Your task to perform on an android device: turn on the 24-hour format for clock Image 0: 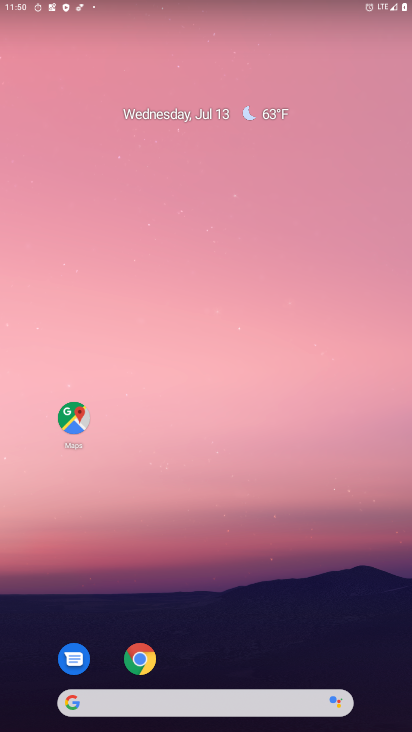
Step 0: drag from (307, 628) to (282, 107)
Your task to perform on an android device: turn on the 24-hour format for clock Image 1: 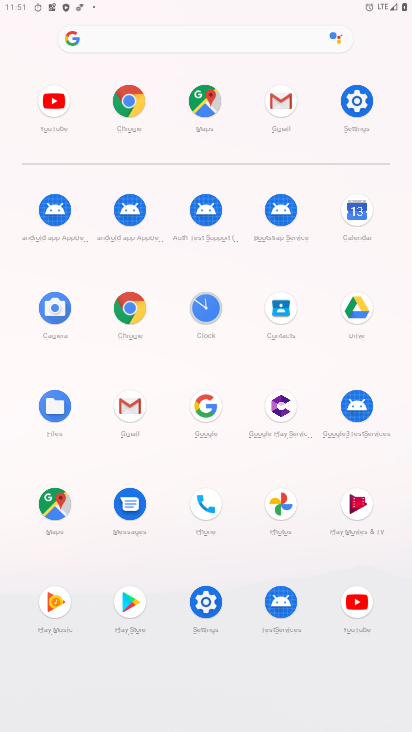
Step 1: click (212, 309)
Your task to perform on an android device: turn on the 24-hour format for clock Image 2: 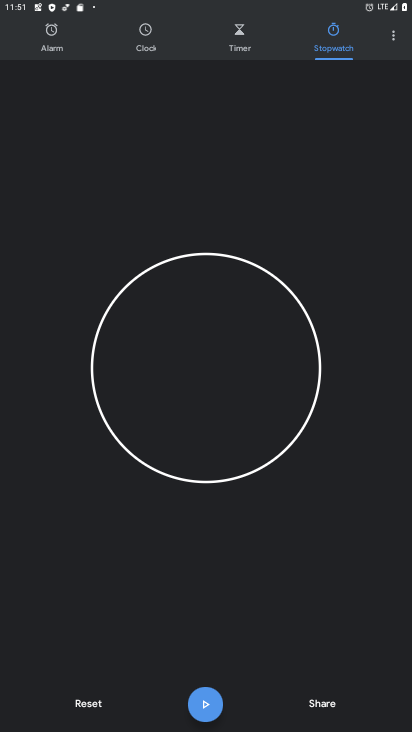
Step 2: click (398, 34)
Your task to perform on an android device: turn on the 24-hour format for clock Image 3: 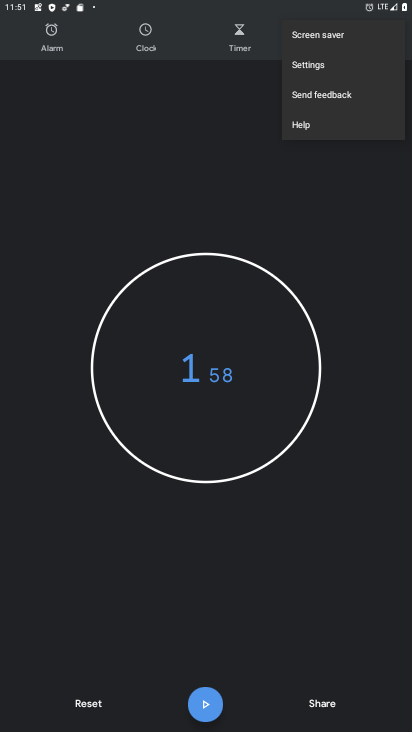
Step 3: click (313, 61)
Your task to perform on an android device: turn on the 24-hour format for clock Image 4: 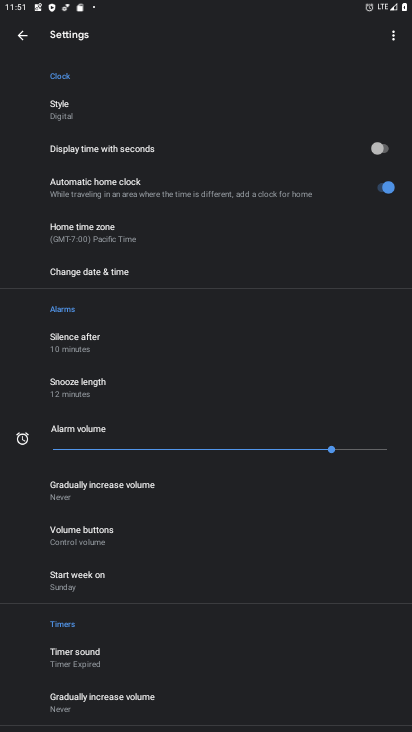
Step 4: click (120, 275)
Your task to perform on an android device: turn on the 24-hour format for clock Image 5: 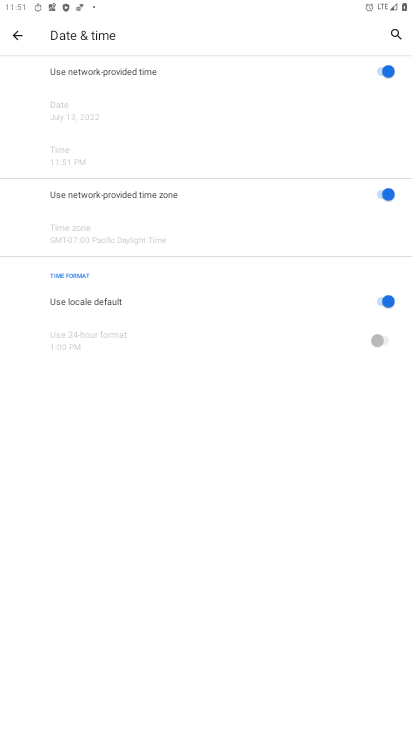
Step 5: click (385, 299)
Your task to perform on an android device: turn on the 24-hour format for clock Image 6: 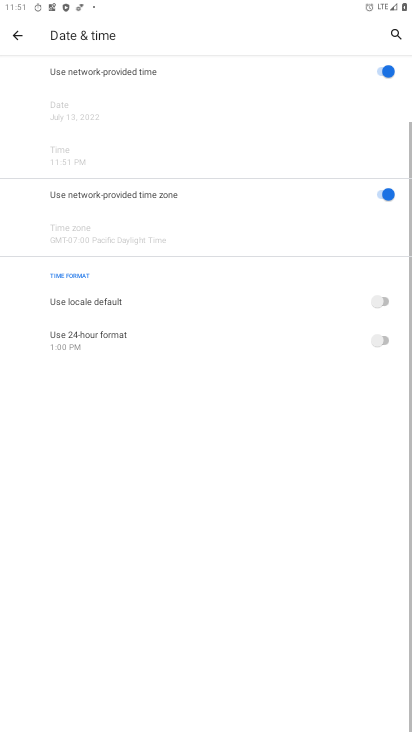
Step 6: click (369, 350)
Your task to perform on an android device: turn on the 24-hour format for clock Image 7: 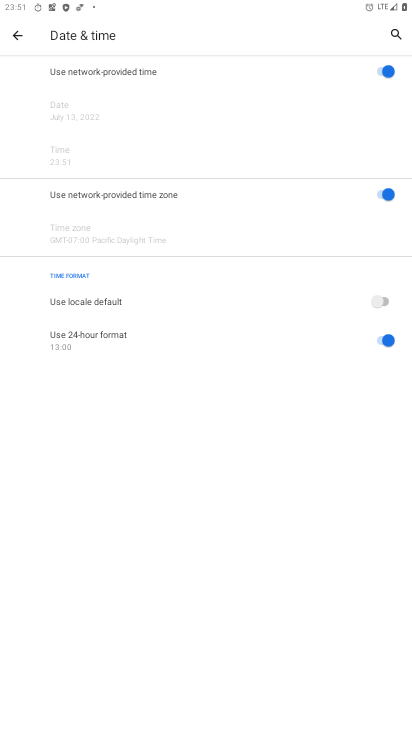
Step 7: task complete